Your task to perform on an android device: Go to Google Image 0: 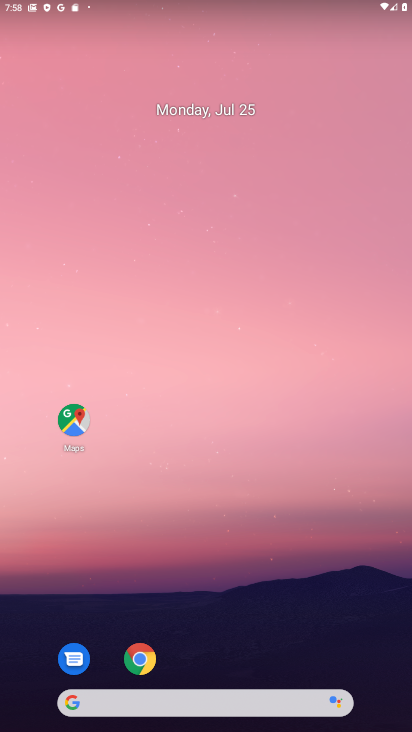
Step 0: drag from (200, 668) to (155, 130)
Your task to perform on an android device: Go to Google Image 1: 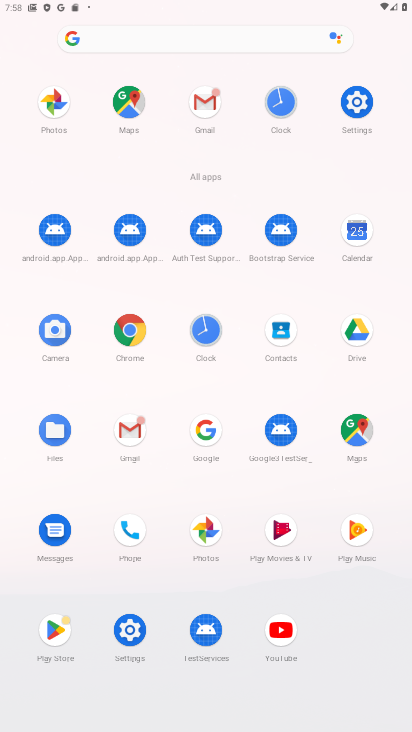
Step 1: click (206, 429)
Your task to perform on an android device: Go to Google Image 2: 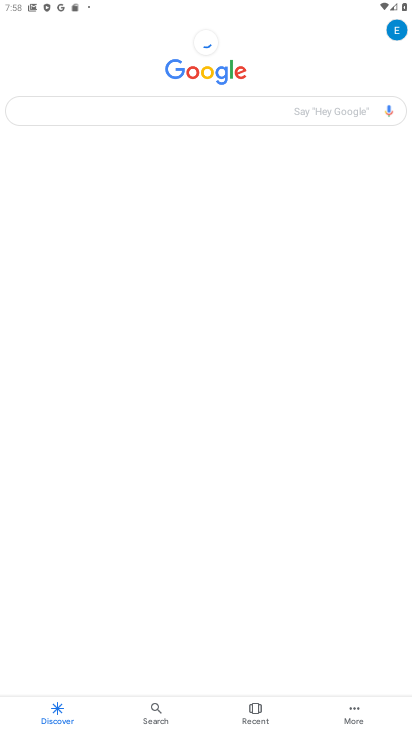
Step 2: task complete